Your task to perform on an android device: Go to Reddit.com Image 0: 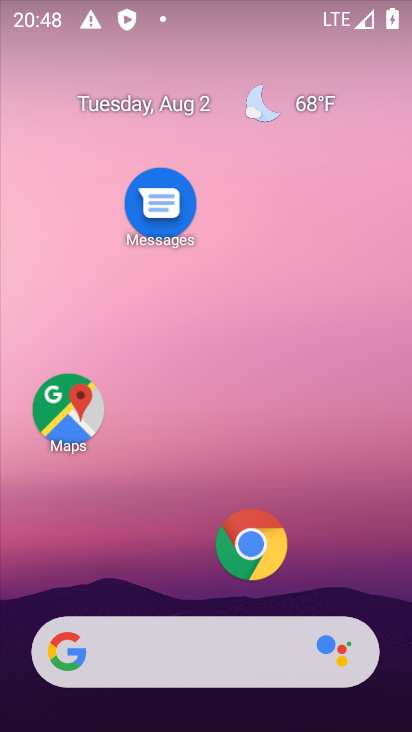
Step 0: click (240, 555)
Your task to perform on an android device: Go to Reddit.com Image 1: 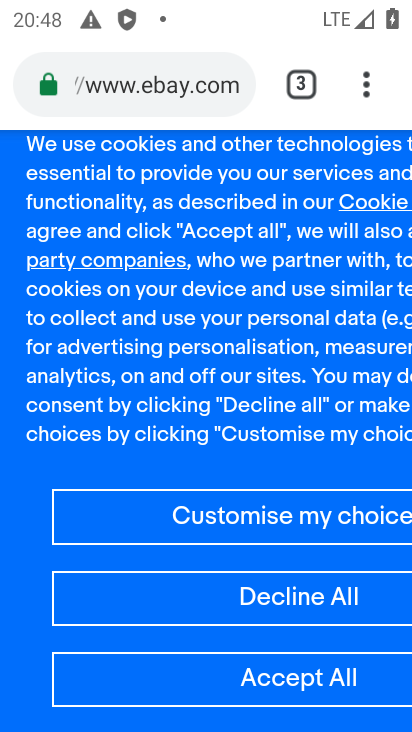
Step 1: click (303, 72)
Your task to perform on an android device: Go to Reddit.com Image 2: 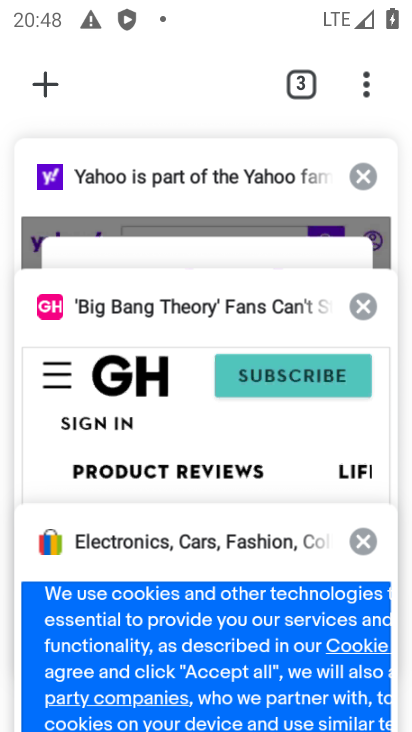
Step 2: click (59, 83)
Your task to perform on an android device: Go to Reddit.com Image 3: 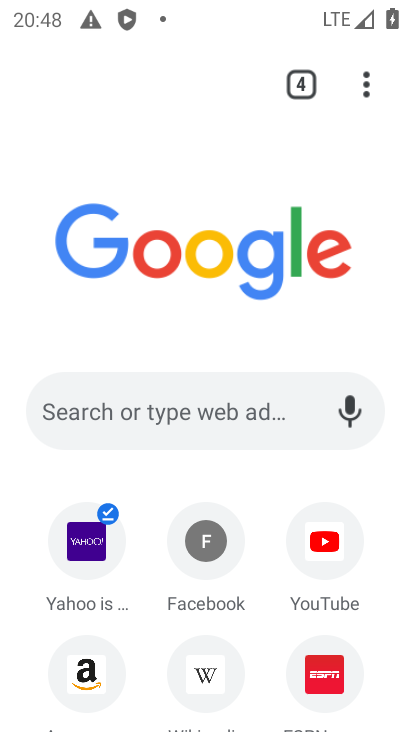
Step 3: drag from (214, 610) to (230, 231)
Your task to perform on an android device: Go to Reddit.com Image 4: 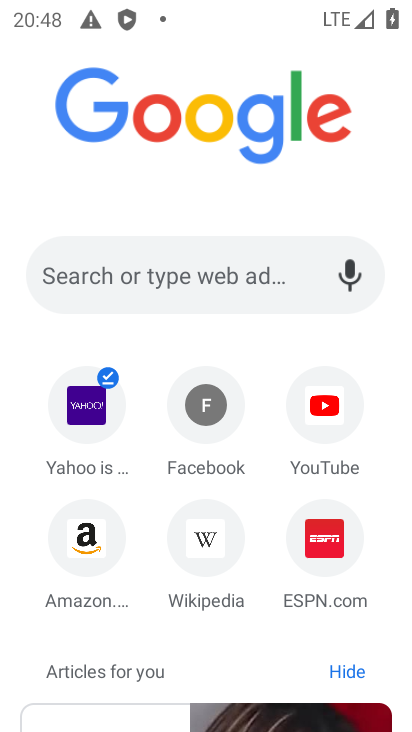
Step 4: click (166, 283)
Your task to perform on an android device: Go to Reddit.com Image 5: 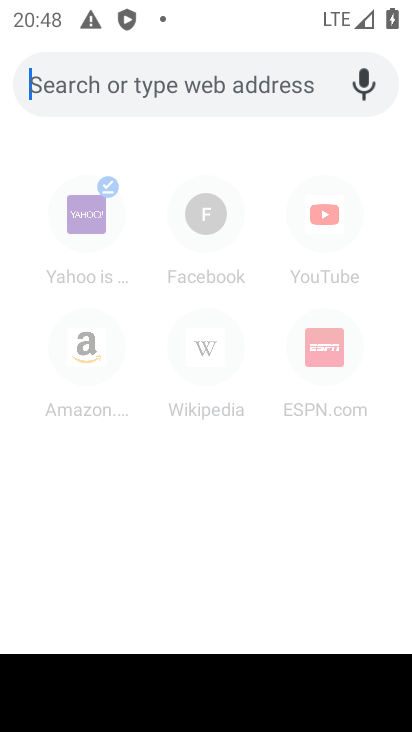
Step 5: type "Reddit.com"
Your task to perform on an android device: Go to Reddit.com Image 6: 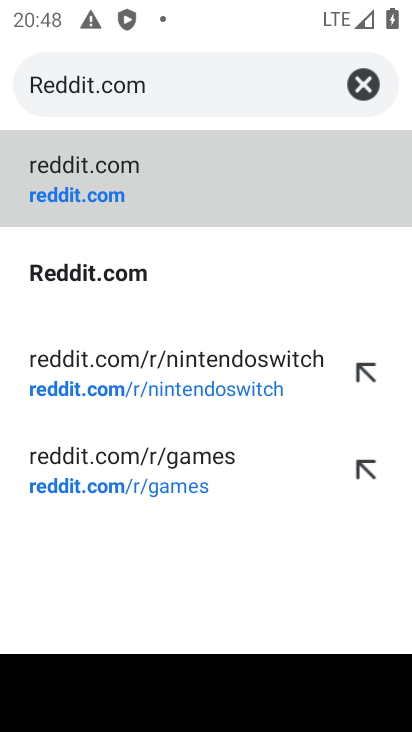
Step 6: click (244, 164)
Your task to perform on an android device: Go to Reddit.com Image 7: 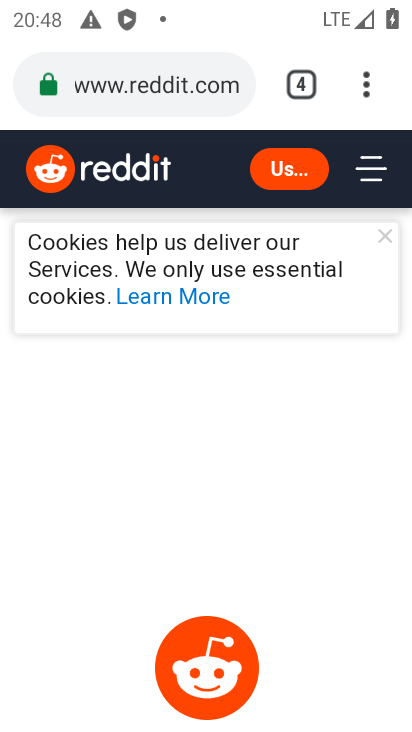
Step 7: task complete